Your task to perform on an android device: Open Yahoo.com Image 0: 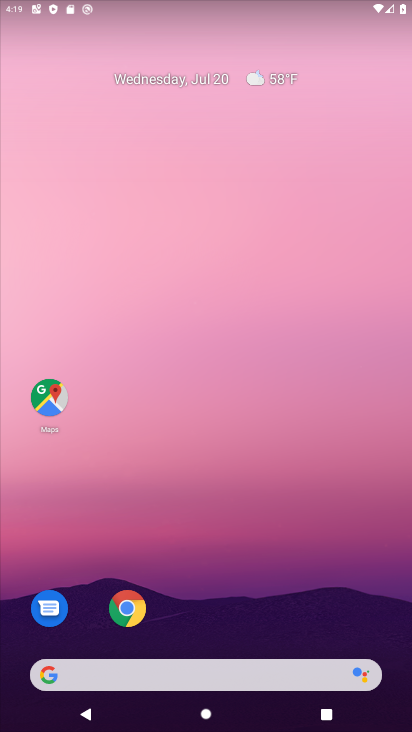
Step 0: click (133, 107)
Your task to perform on an android device: Open Yahoo.com Image 1: 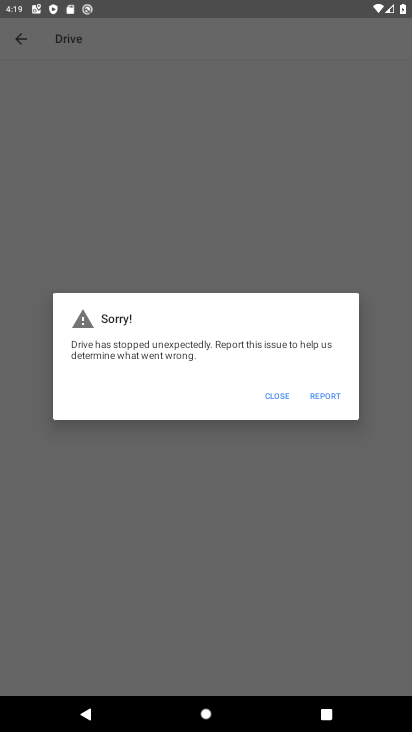
Step 1: press home button
Your task to perform on an android device: Open Yahoo.com Image 2: 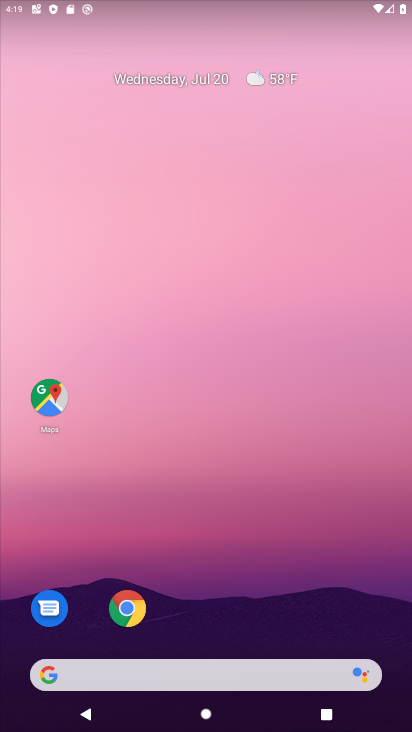
Step 2: click (136, 613)
Your task to perform on an android device: Open Yahoo.com Image 3: 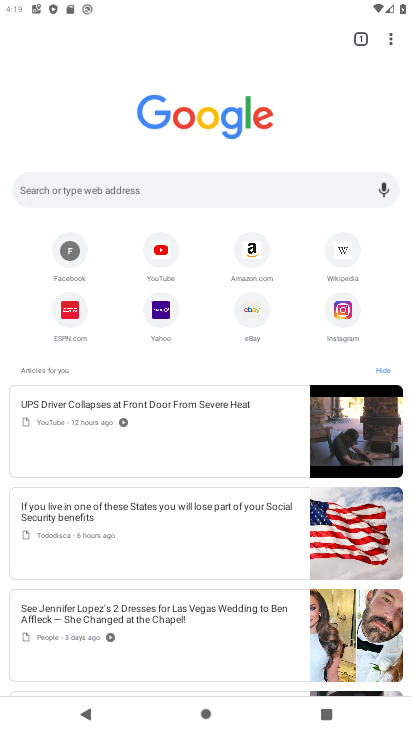
Step 3: click (164, 299)
Your task to perform on an android device: Open Yahoo.com Image 4: 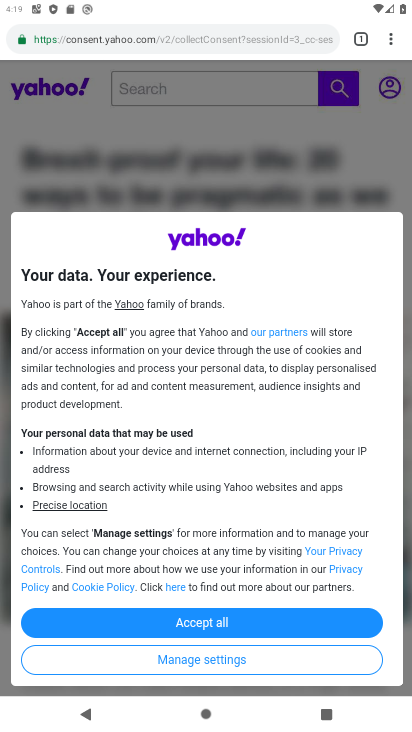
Step 4: click (265, 611)
Your task to perform on an android device: Open Yahoo.com Image 5: 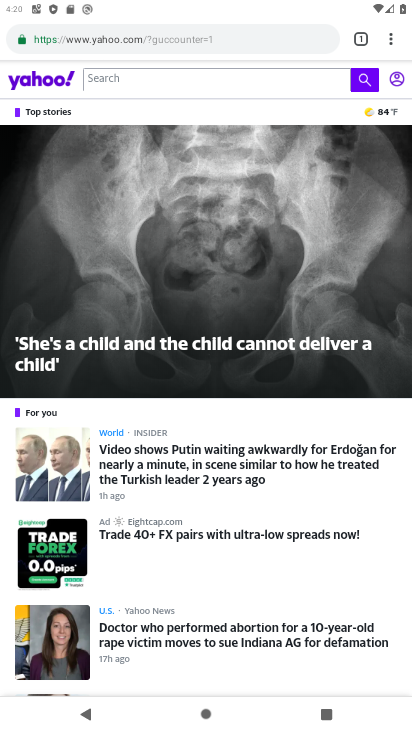
Step 5: task complete